Your task to perform on an android device: toggle notification dots Image 0: 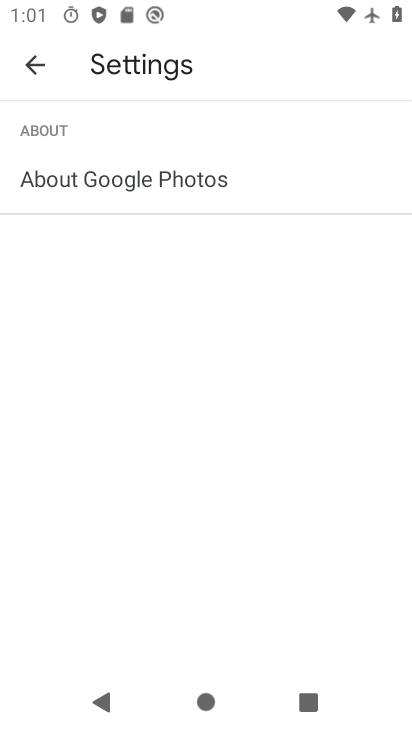
Step 0: press home button
Your task to perform on an android device: toggle notification dots Image 1: 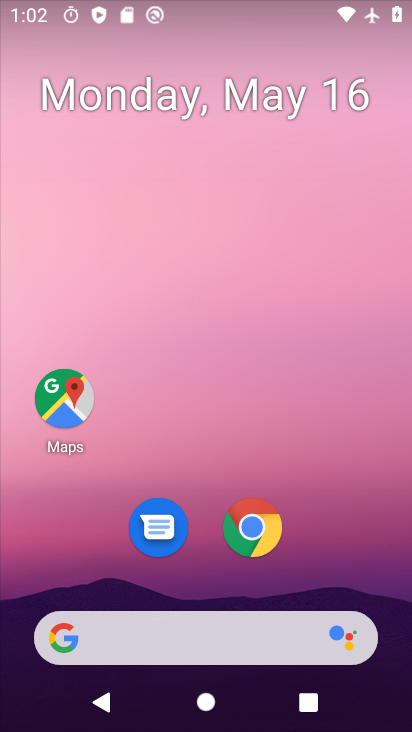
Step 1: drag from (162, 641) to (342, 121)
Your task to perform on an android device: toggle notification dots Image 2: 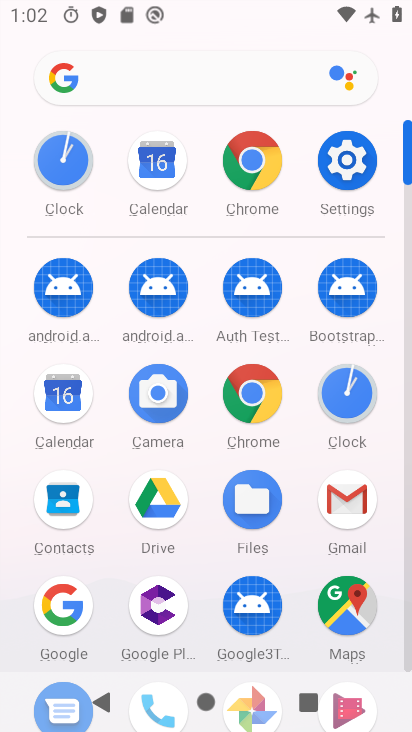
Step 2: click (351, 166)
Your task to perform on an android device: toggle notification dots Image 3: 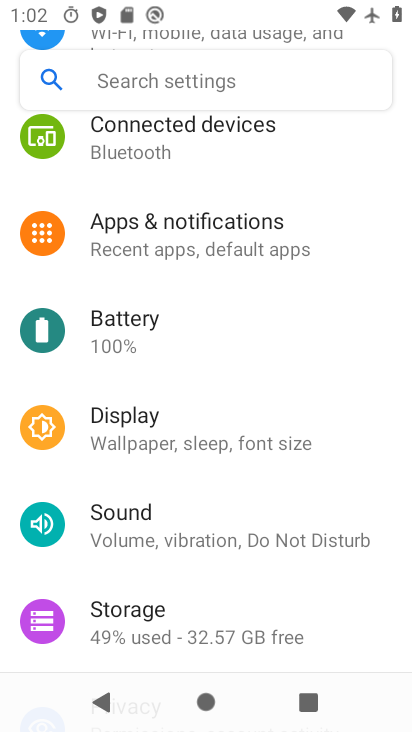
Step 3: click (226, 233)
Your task to perform on an android device: toggle notification dots Image 4: 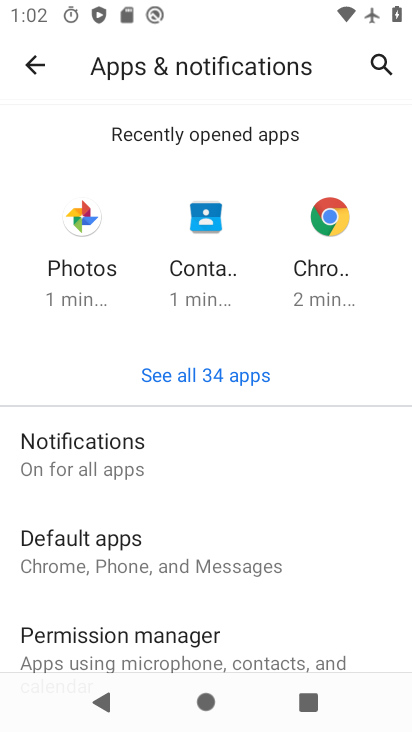
Step 4: click (111, 456)
Your task to perform on an android device: toggle notification dots Image 5: 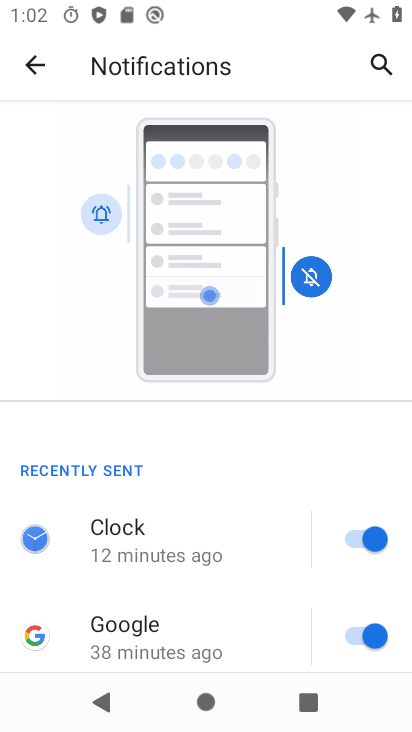
Step 5: drag from (173, 632) to (379, 100)
Your task to perform on an android device: toggle notification dots Image 6: 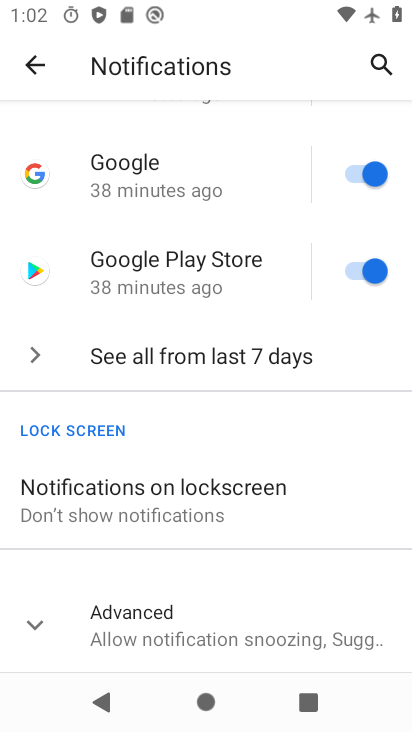
Step 6: click (114, 603)
Your task to perform on an android device: toggle notification dots Image 7: 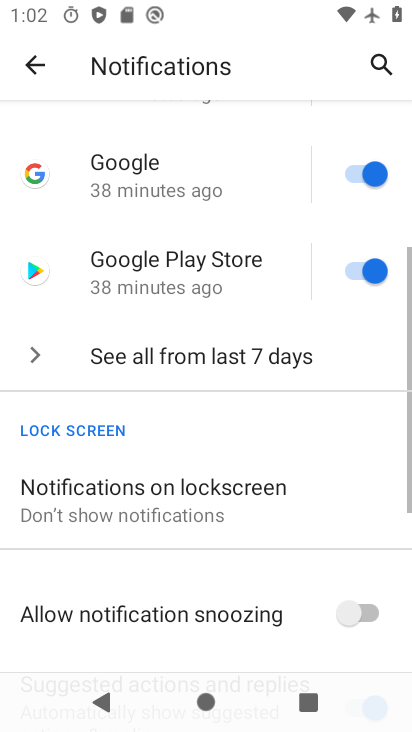
Step 7: drag from (123, 650) to (324, 260)
Your task to perform on an android device: toggle notification dots Image 8: 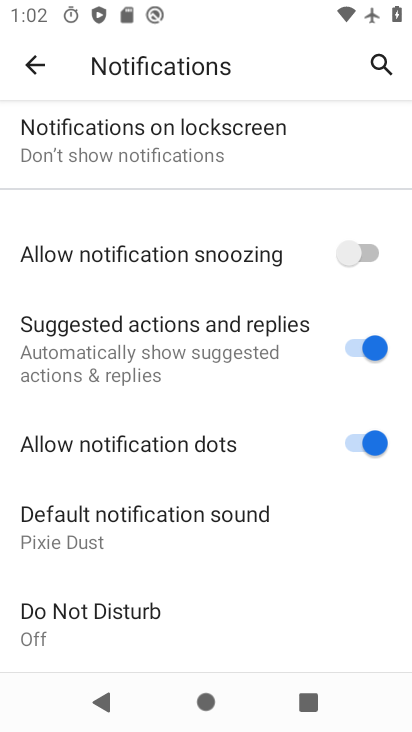
Step 8: drag from (233, 458) to (338, 227)
Your task to perform on an android device: toggle notification dots Image 9: 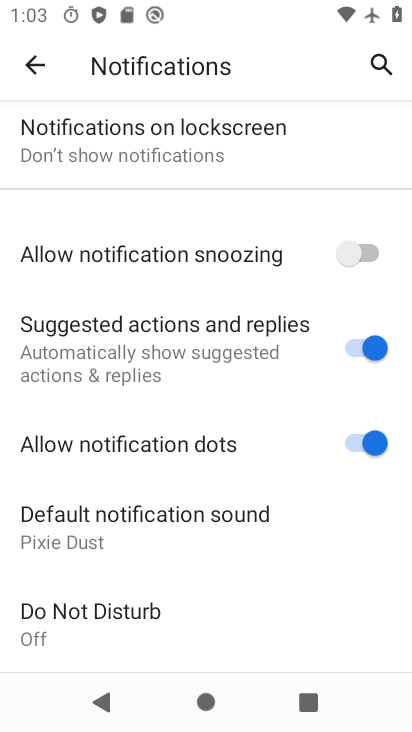
Step 9: click (358, 444)
Your task to perform on an android device: toggle notification dots Image 10: 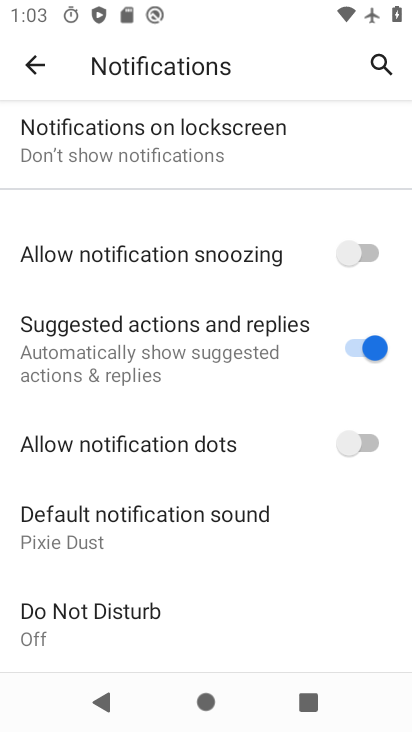
Step 10: task complete